Your task to perform on an android device: uninstall "Viber Messenger" Image 0: 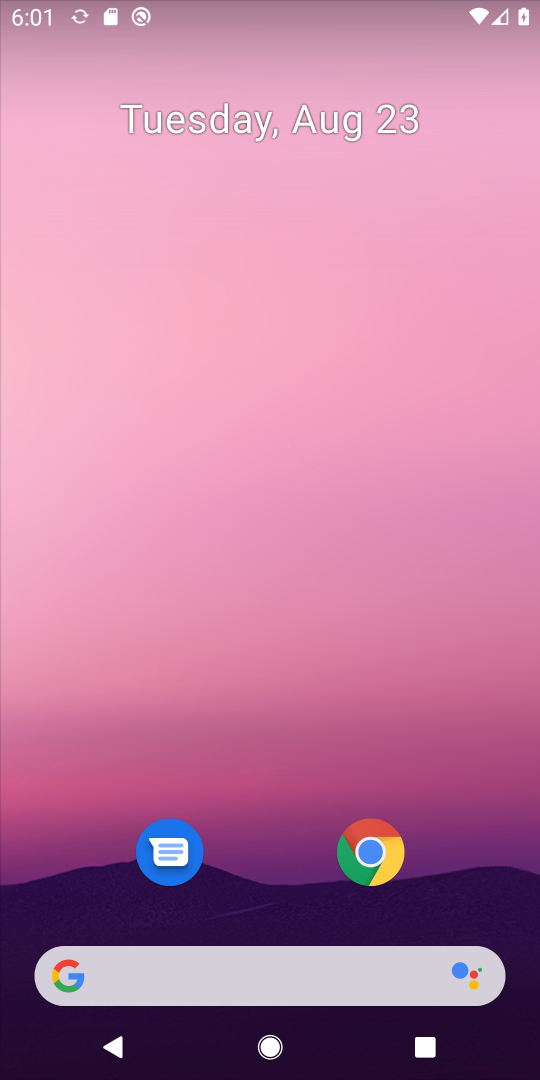
Step 0: drag from (238, 974) to (351, 73)
Your task to perform on an android device: uninstall "Viber Messenger" Image 1: 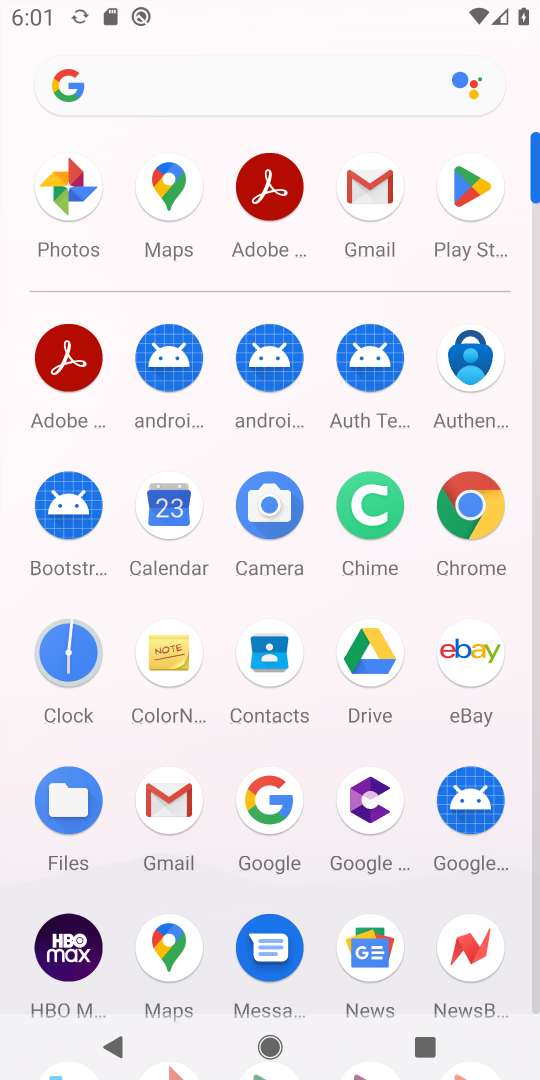
Step 1: click (467, 198)
Your task to perform on an android device: uninstall "Viber Messenger" Image 2: 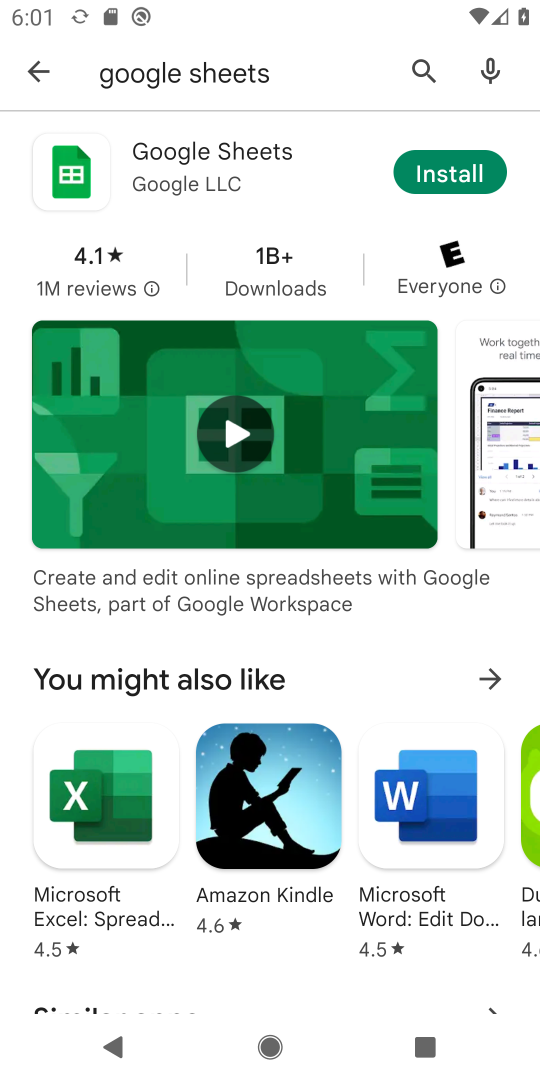
Step 2: press back button
Your task to perform on an android device: uninstall "Viber Messenger" Image 3: 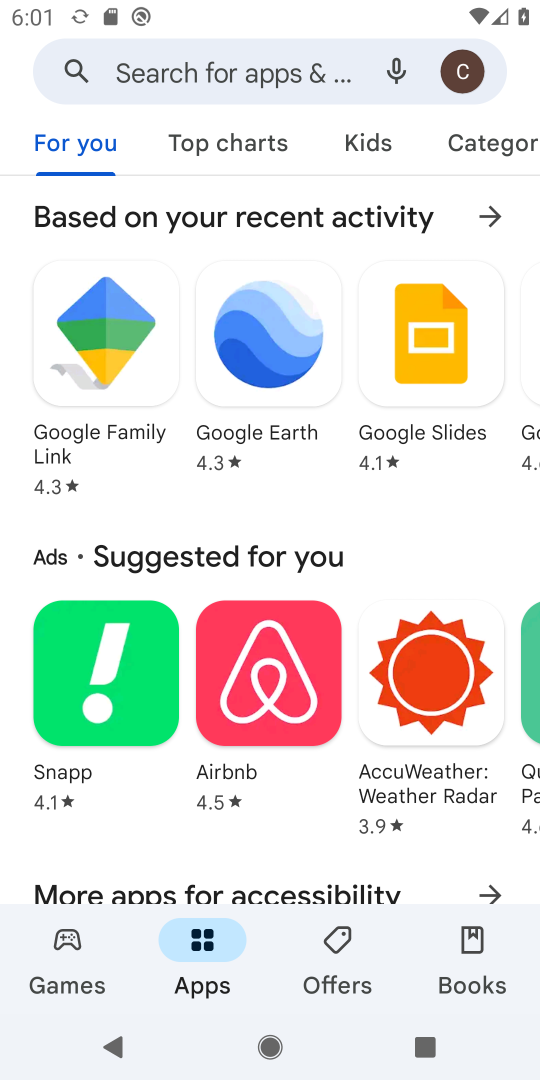
Step 3: click (283, 82)
Your task to perform on an android device: uninstall "Viber Messenger" Image 4: 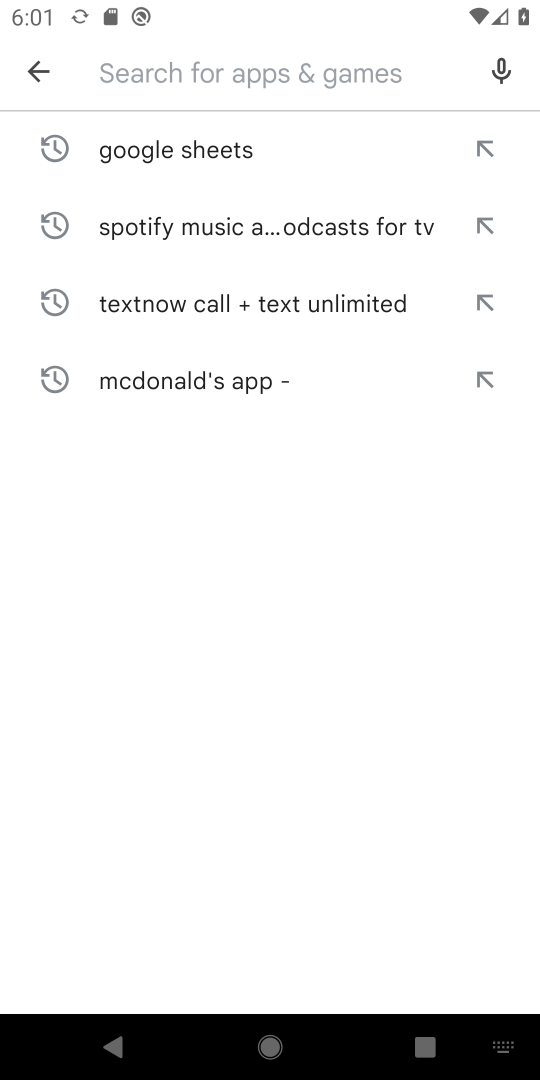
Step 4: type "Viber Messenger"
Your task to perform on an android device: uninstall "Viber Messenger" Image 5: 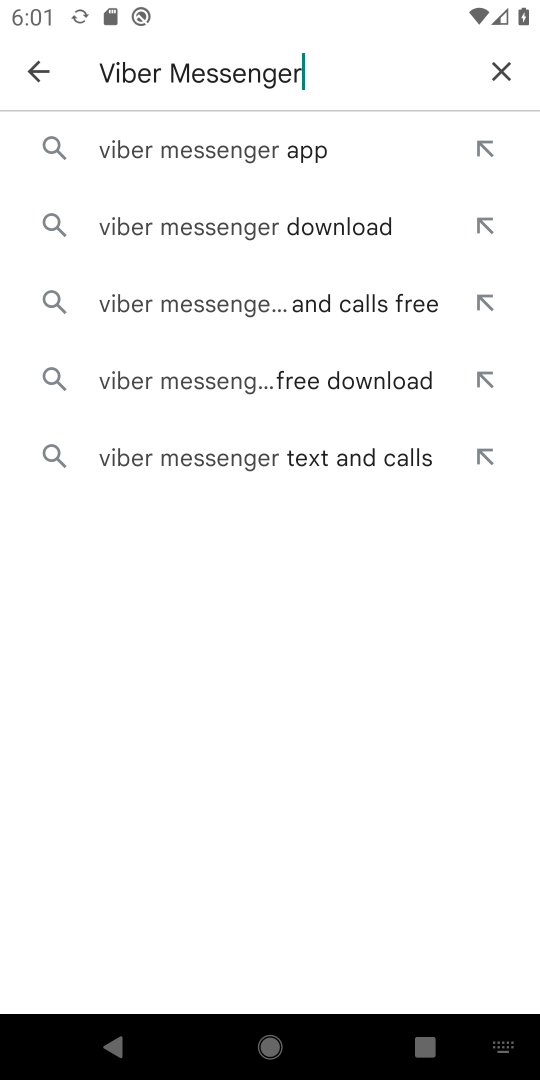
Step 5: click (277, 147)
Your task to perform on an android device: uninstall "Viber Messenger" Image 6: 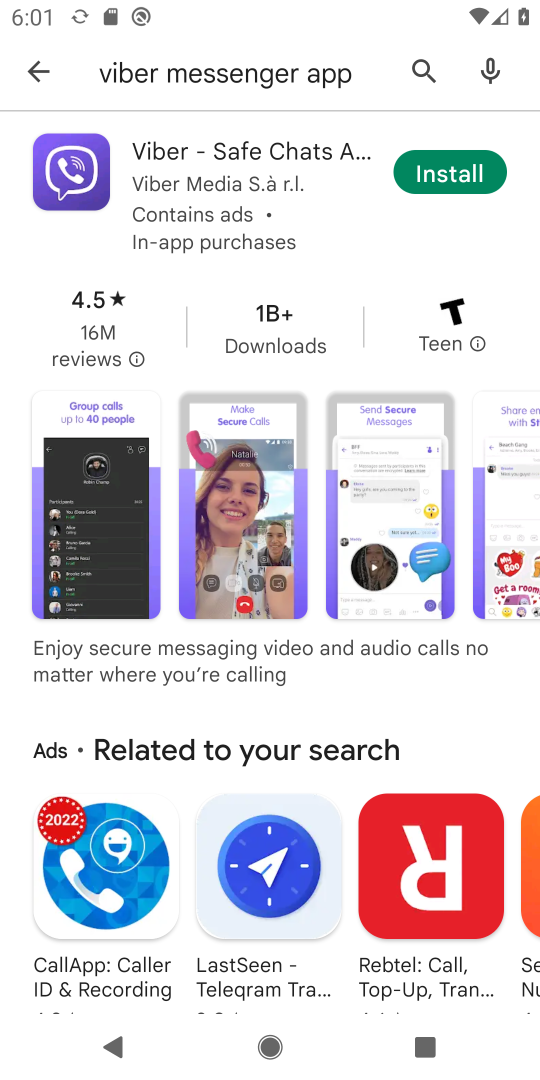
Step 6: task complete